Your task to perform on an android device: open app "Lyft - Rideshare, Bikes, Scooters & Transit" (install if not already installed) and enter user name: "deliberating@gmail.com" and password: "preyed" Image 0: 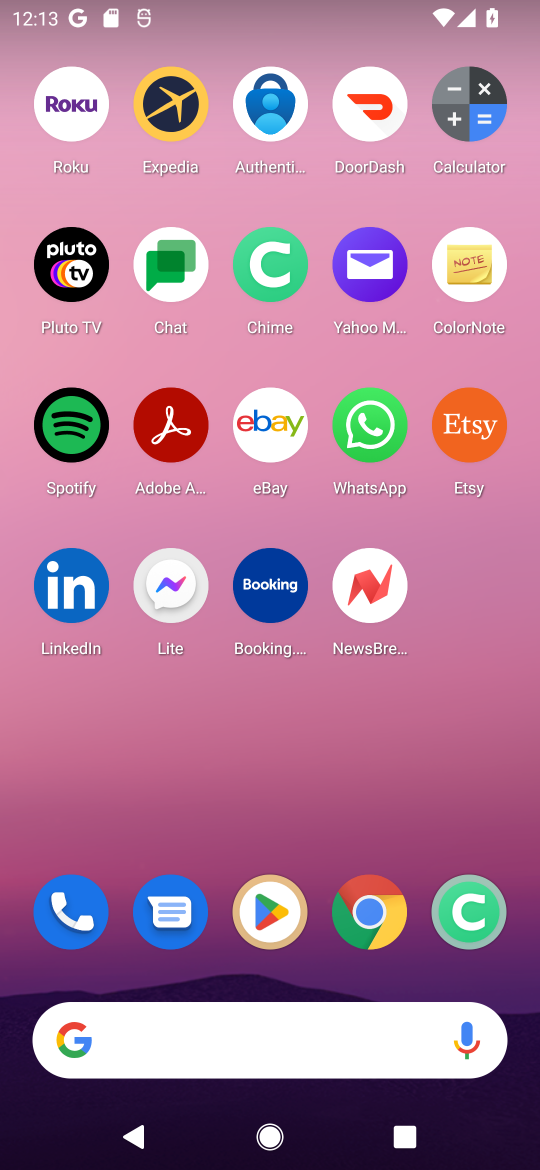
Step 0: click (251, 905)
Your task to perform on an android device: open app "Lyft - Rideshare, Bikes, Scooters & Transit" (install if not already installed) and enter user name: "deliberating@gmail.com" and password: "preyed" Image 1: 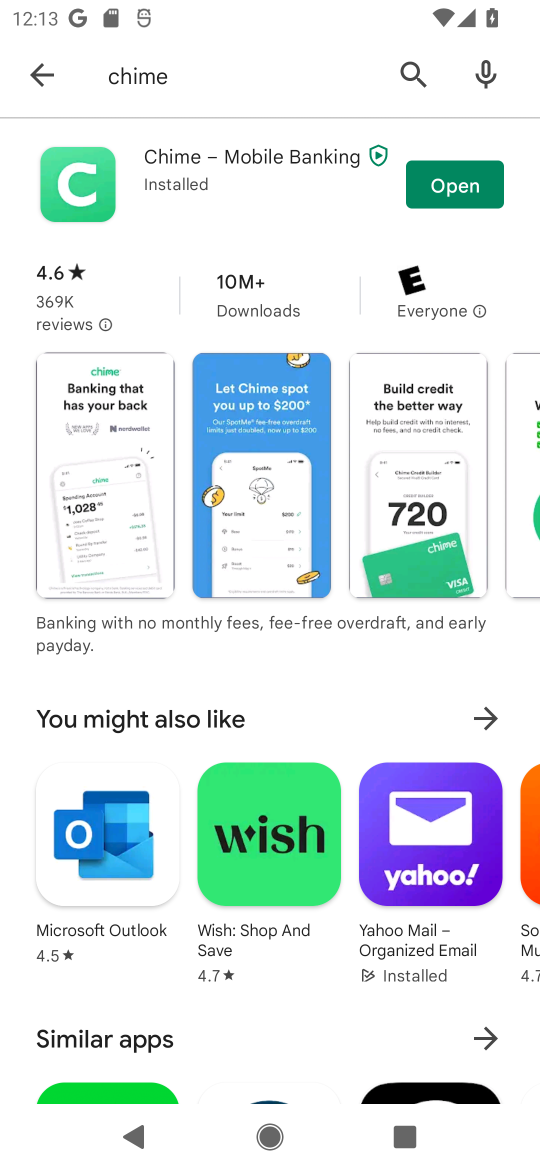
Step 1: click (409, 62)
Your task to perform on an android device: open app "Lyft - Rideshare, Bikes, Scooters & Transit" (install if not already installed) and enter user name: "deliberating@gmail.com" and password: "preyed" Image 2: 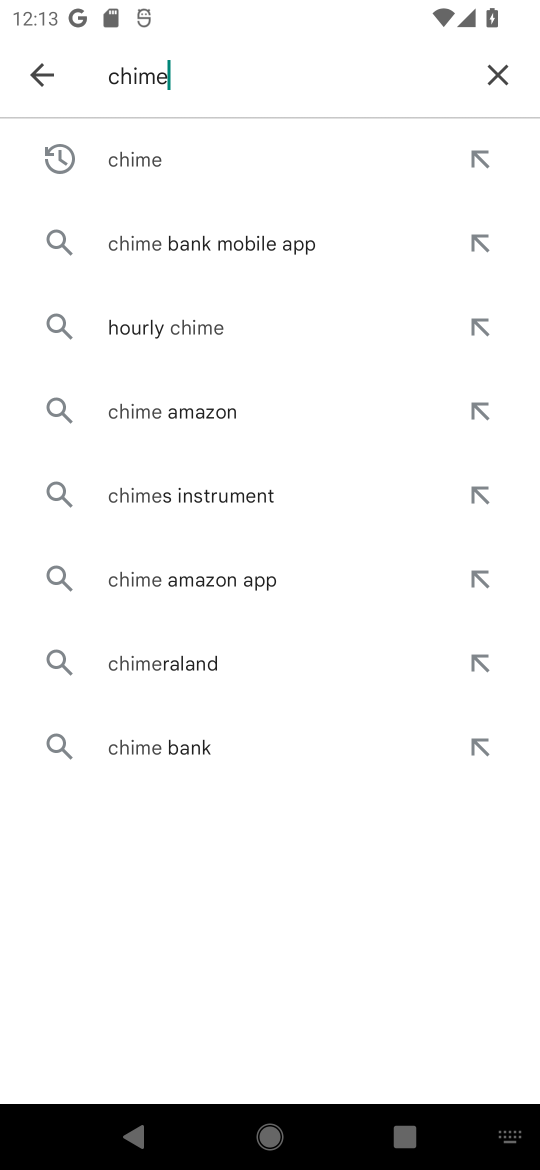
Step 2: click (500, 64)
Your task to perform on an android device: open app "Lyft - Rideshare, Bikes, Scooters & Transit" (install if not already installed) and enter user name: "deliberating@gmail.com" and password: "preyed" Image 3: 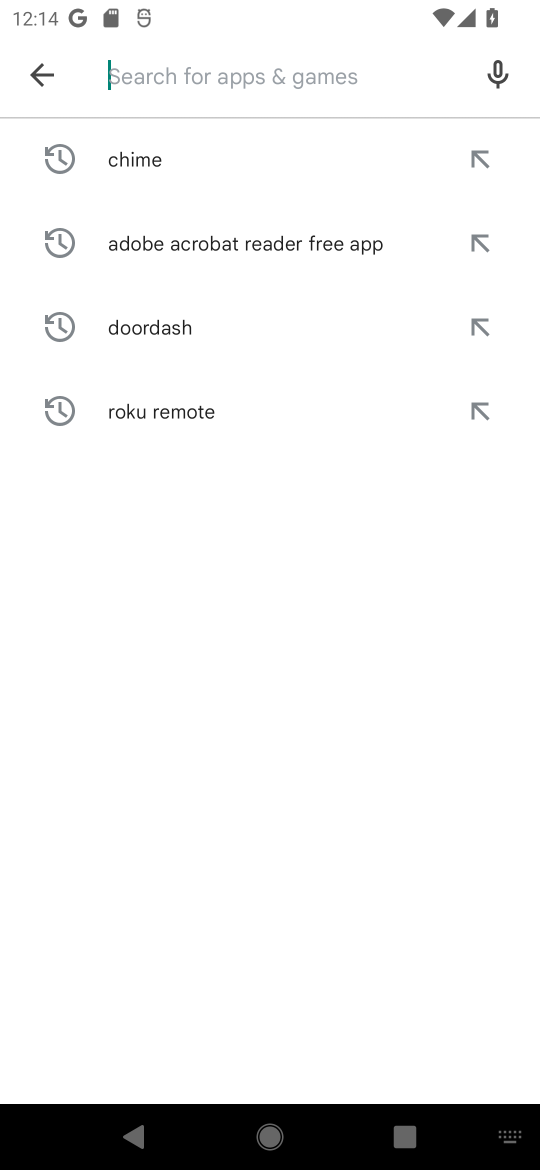
Step 3: click (201, 71)
Your task to perform on an android device: open app "Lyft - Rideshare, Bikes, Scooters & Transit" (install if not already installed) and enter user name: "deliberating@gmail.com" and password: "preyed" Image 4: 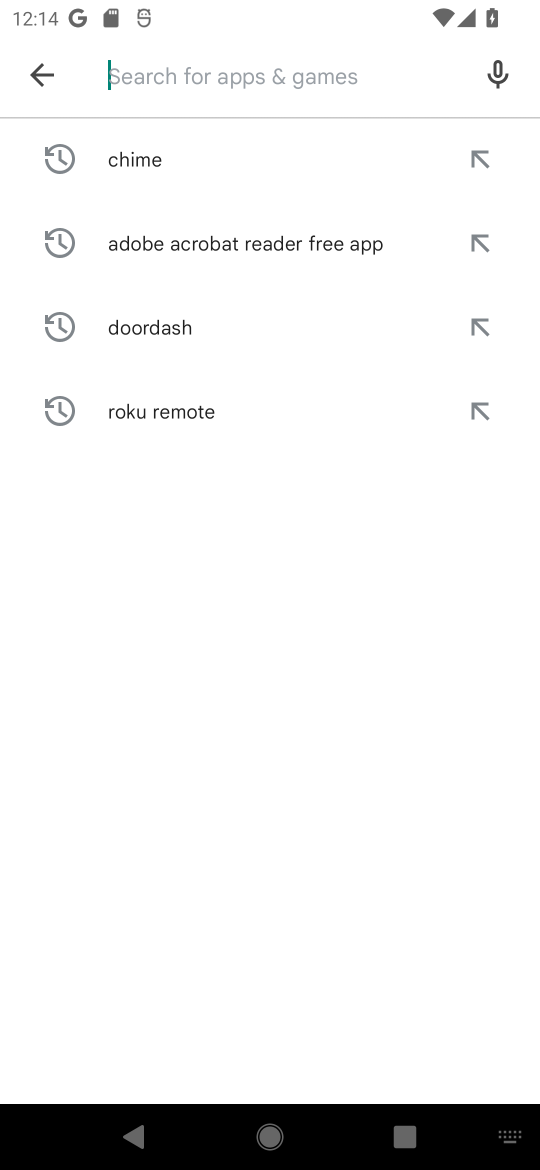
Step 4: type "lyft"
Your task to perform on an android device: open app "Lyft - Rideshare, Bikes, Scooters & Transit" (install if not already installed) and enter user name: "deliberating@gmail.com" and password: "preyed" Image 5: 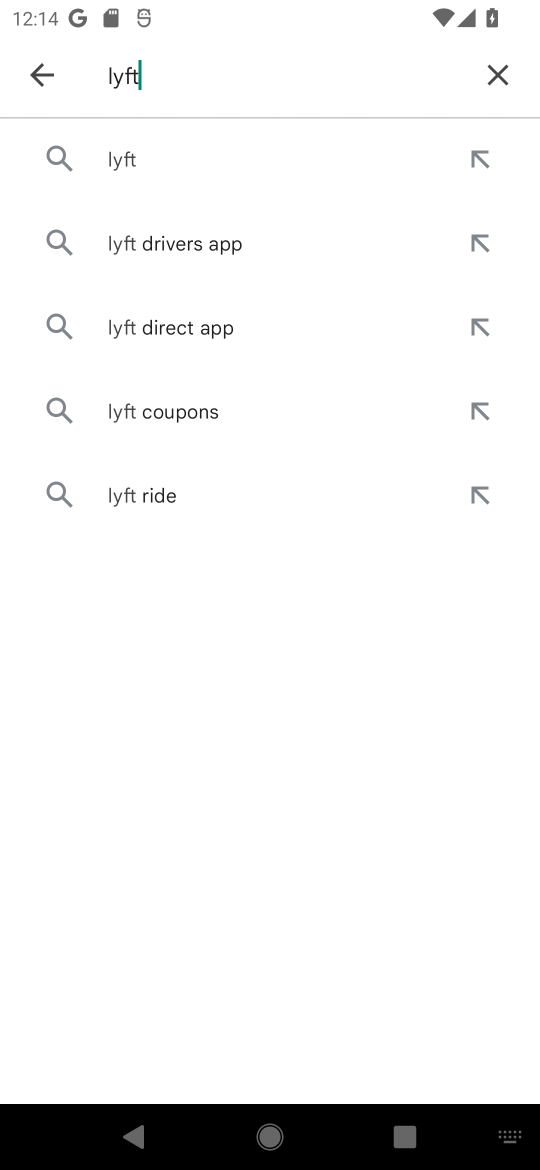
Step 5: click (126, 160)
Your task to perform on an android device: open app "Lyft - Rideshare, Bikes, Scooters & Transit" (install if not already installed) and enter user name: "deliberating@gmail.com" and password: "preyed" Image 6: 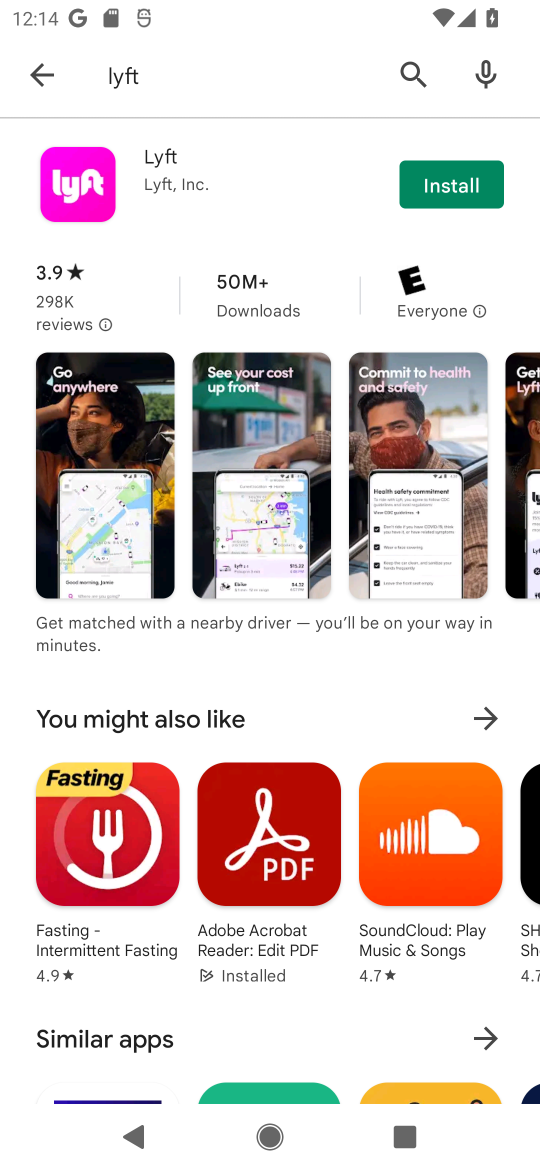
Step 6: click (434, 180)
Your task to perform on an android device: open app "Lyft - Rideshare, Bikes, Scooters & Transit" (install if not already installed) and enter user name: "deliberating@gmail.com" and password: "preyed" Image 7: 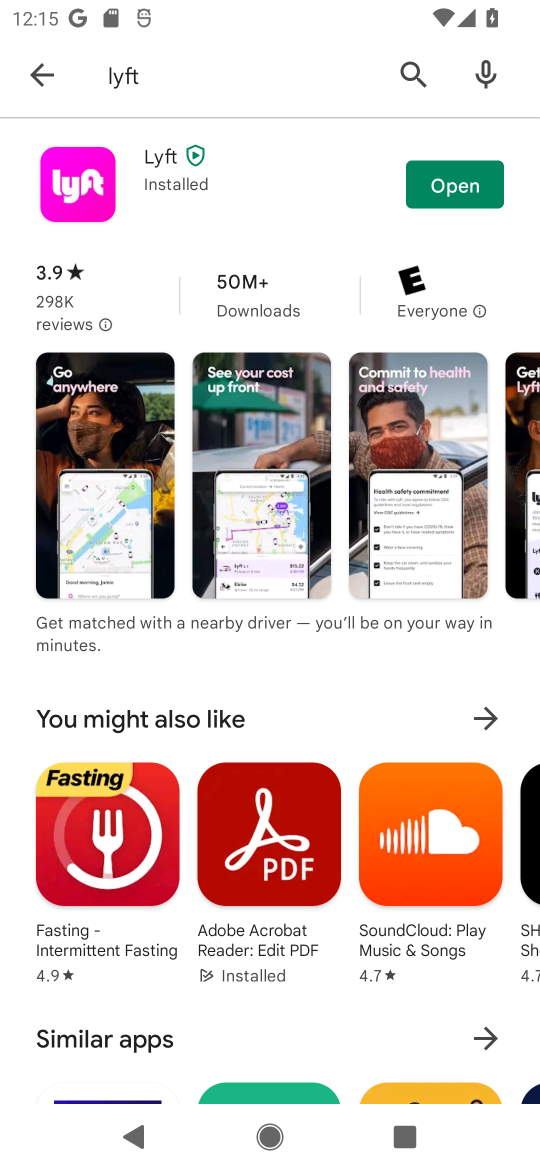
Step 7: click (441, 193)
Your task to perform on an android device: open app "Lyft - Rideshare, Bikes, Scooters & Transit" (install if not already installed) and enter user name: "deliberating@gmail.com" and password: "preyed" Image 8: 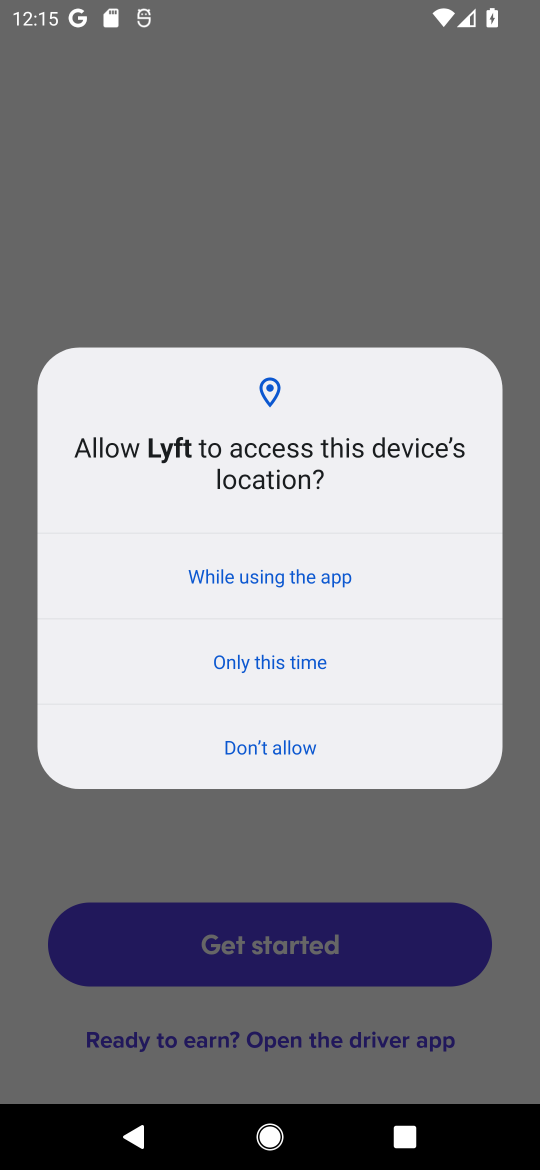
Step 8: click (262, 745)
Your task to perform on an android device: open app "Lyft - Rideshare, Bikes, Scooters & Transit" (install if not already installed) and enter user name: "deliberating@gmail.com" and password: "preyed" Image 9: 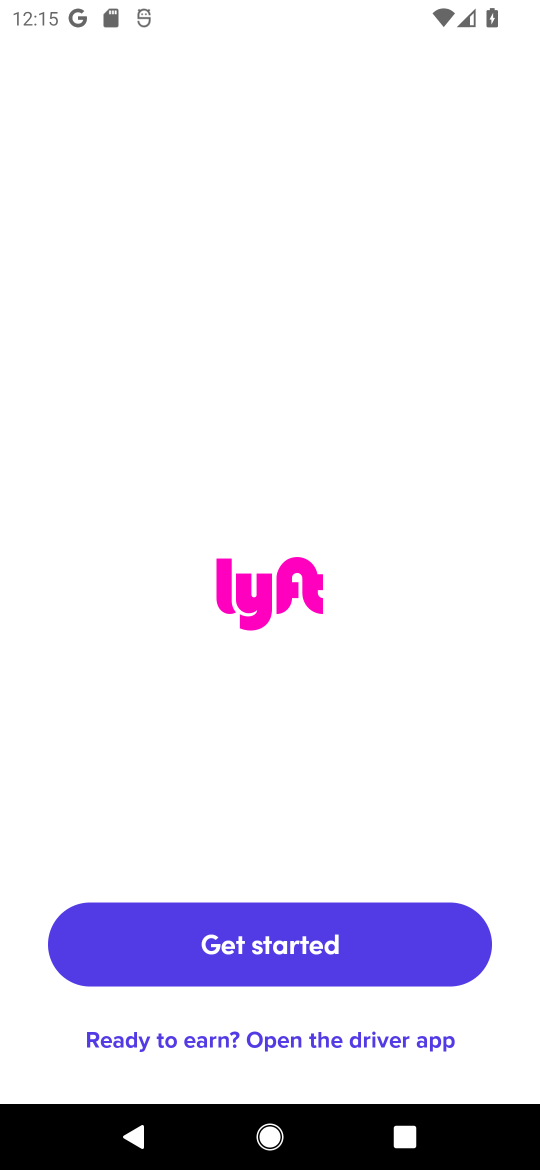
Step 9: click (272, 948)
Your task to perform on an android device: open app "Lyft - Rideshare, Bikes, Scooters & Transit" (install if not already installed) and enter user name: "deliberating@gmail.com" and password: "preyed" Image 10: 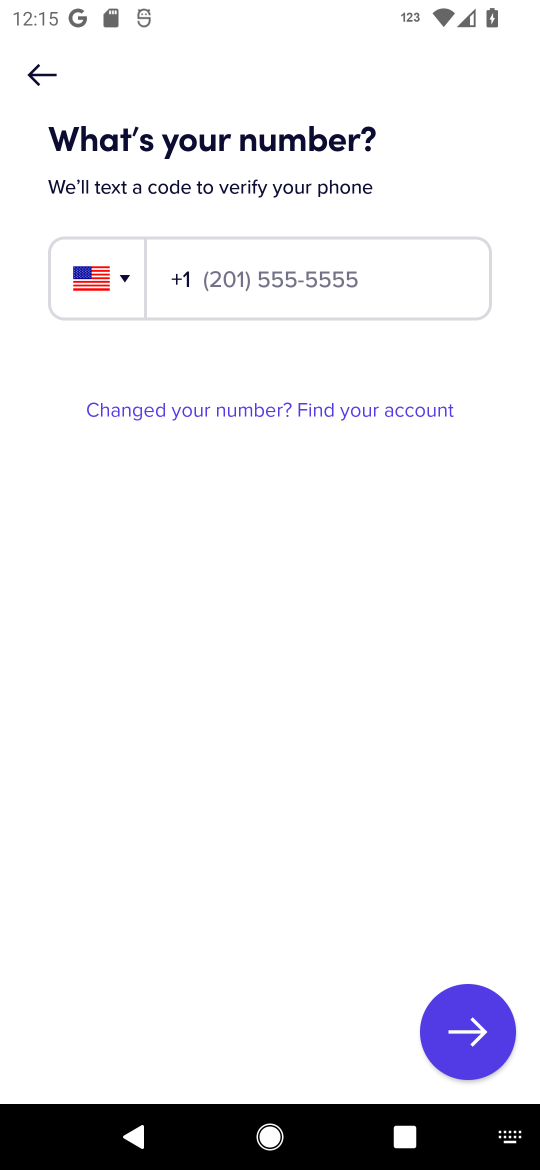
Step 10: task complete